Your task to perform on an android device: Go to accessibility settings Image 0: 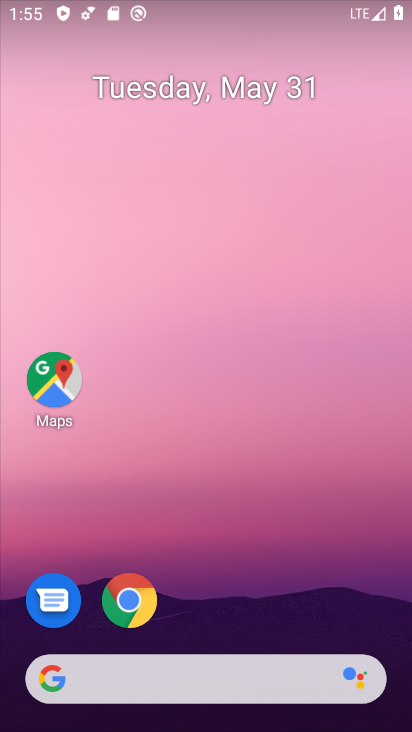
Step 0: drag from (202, 632) to (273, 94)
Your task to perform on an android device: Go to accessibility settings Image 1: 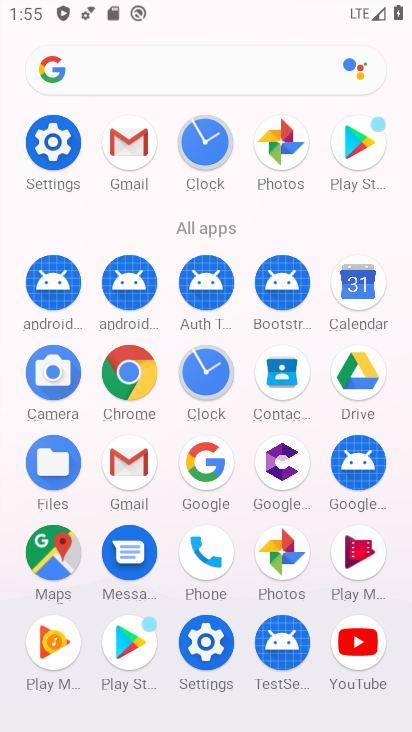
Step 1: click (52, 132)
Your task to perform on an android device: Go to accessibility settings Image 2: 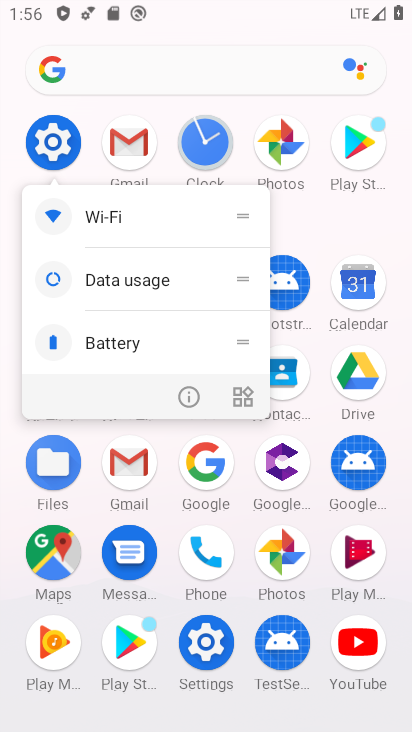
Step 2: click (51, 143)
Your task to perform on an android device: Go to accessibility settings Image 3: 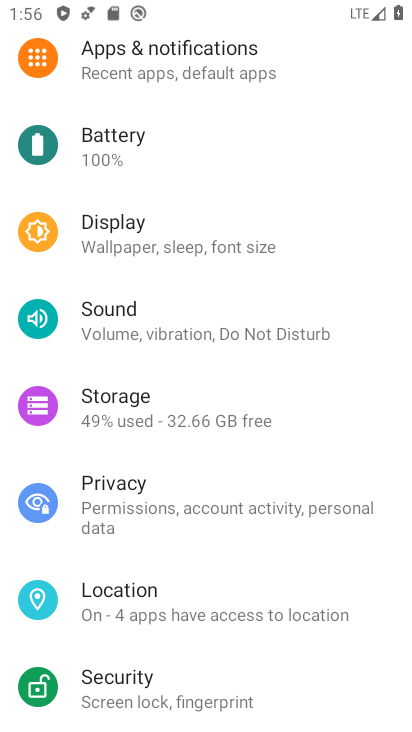
Step 3: drag from (177, 660) to (212, 174)
Your task to perform on an android device: Go to accessibility settings Image 4: 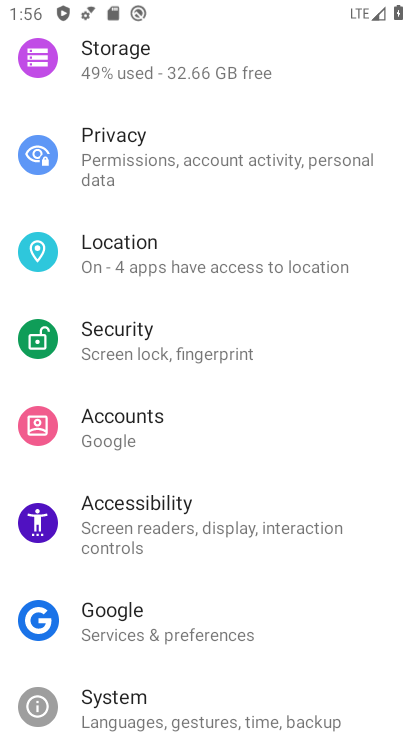
Step 4: click (149, 517)
Your task to perform on an android device: Go to accessibility settings Image 5: 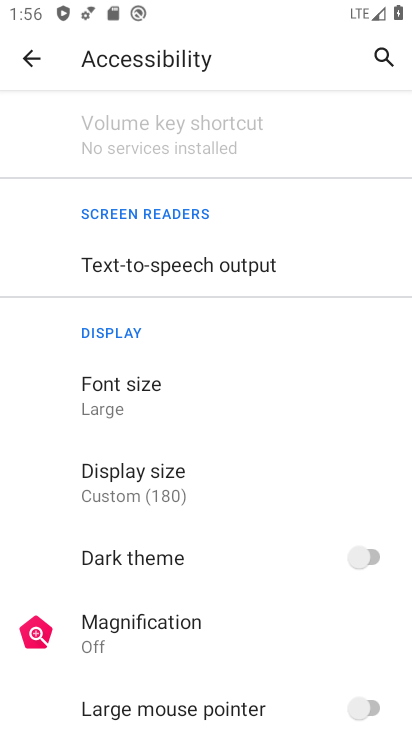
Step 5: task complete